Your task to perform on an android device: What's on my calendar tomorrow? Image 0: 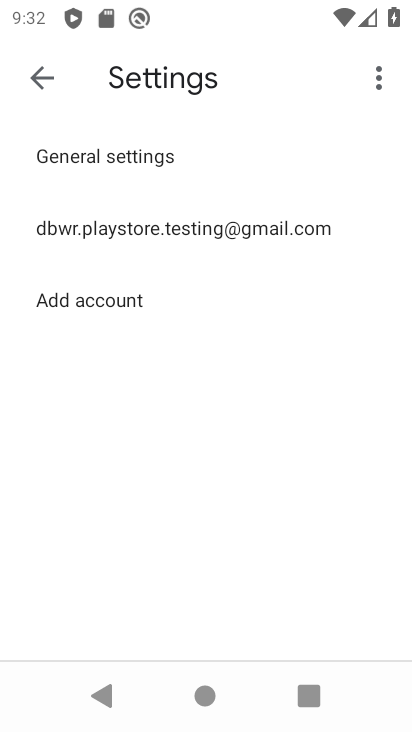
Step 0: press home button
Your task to perform on an android device: What's on my calendar tomorrow? Image 1: 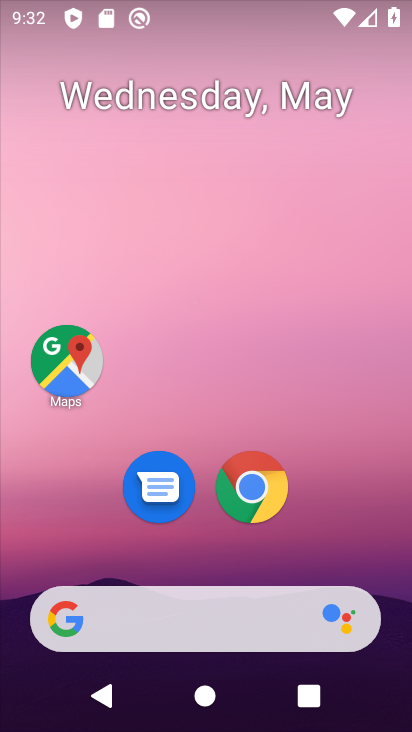
Step 1: drag from (270, 644) to (175, 7)
Your task to perform on an android device: What's on my calendar tomorrow? Image 2: 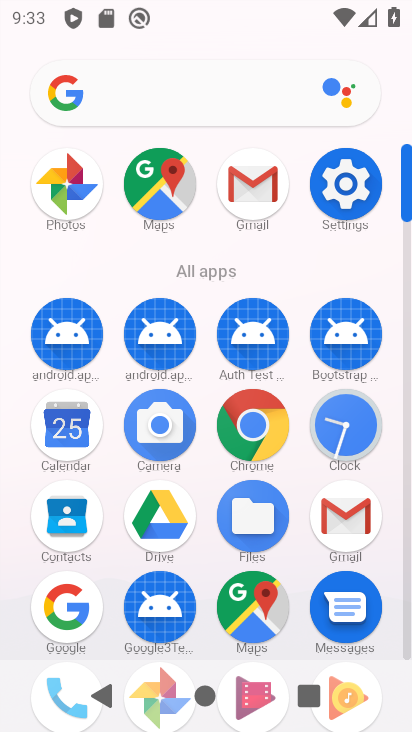
Step 2: click (76, 411)
Your task to perform on an android device: What's on my calendar tomorrow? Image 3: 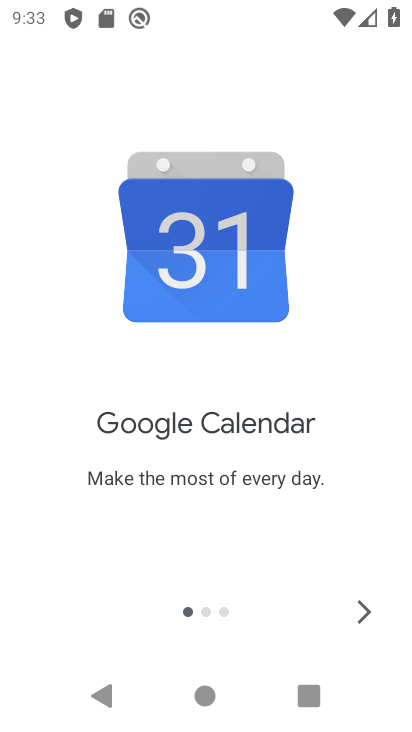
Step 3: click (340, 607)
Your task to perform on an android device: What's on my calendar tomorrow? Image 4: 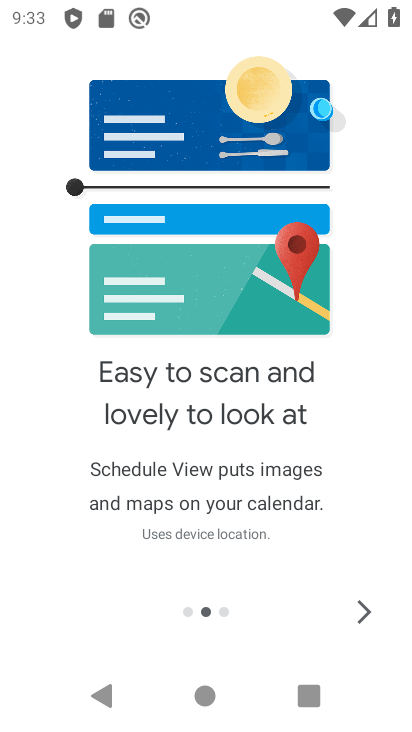
Step 4: click (366, 609)
Your task to perform on an android device: What's on my calendar tomorrow? Image 5: 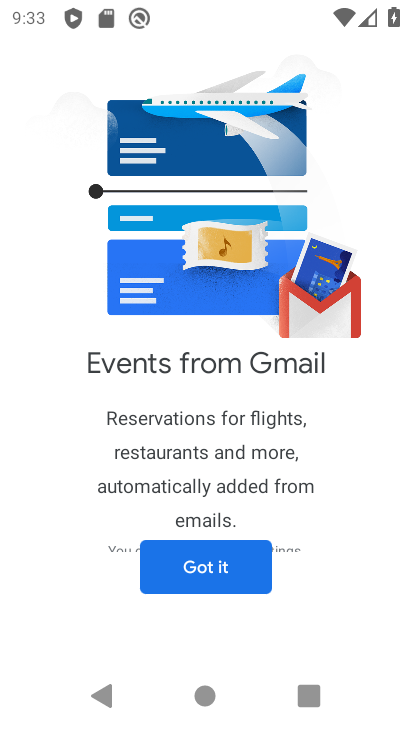
Step 5: click (228, 575)
Your task to perform on an android device: What's on my calendar tomorrow? Image 6: 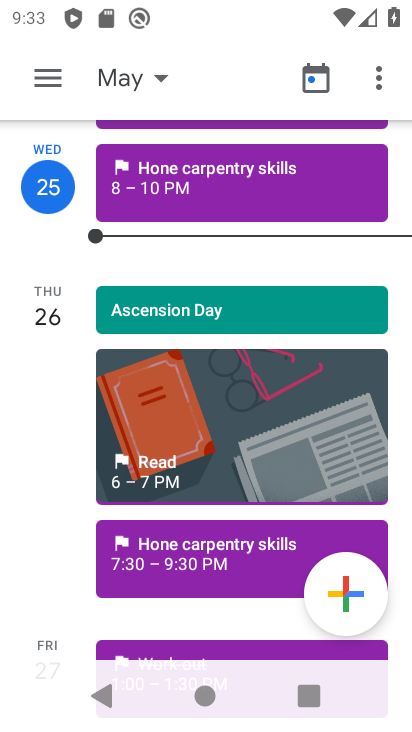
Step 6: click (37, 73)
Your task to perform on an android device: What's on my calendar tomorrow? Image 7: 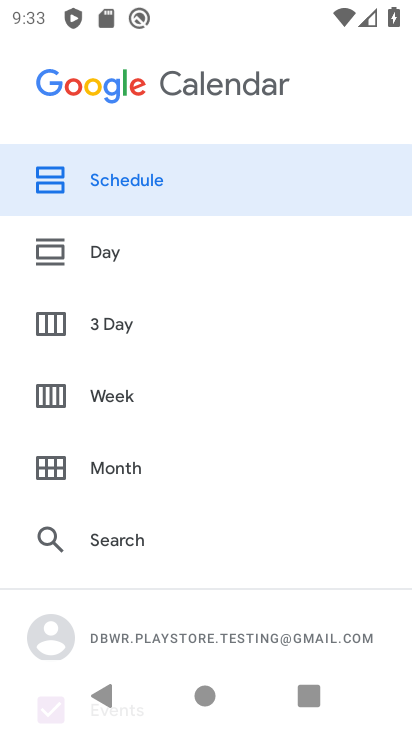
Step 7: click (132, 470)
Your task to perform on an android device: What's on my calendar tomorrow? Image 8: 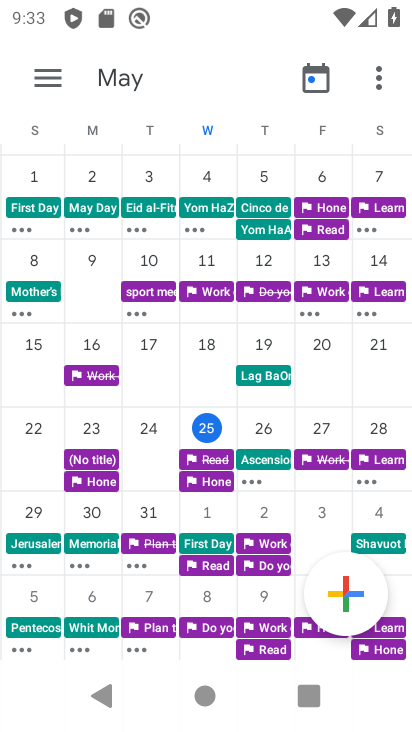
Step 8: click (268, 434)
Your task to perform on an android device: What's on my calendar tomorrow? Image 9: 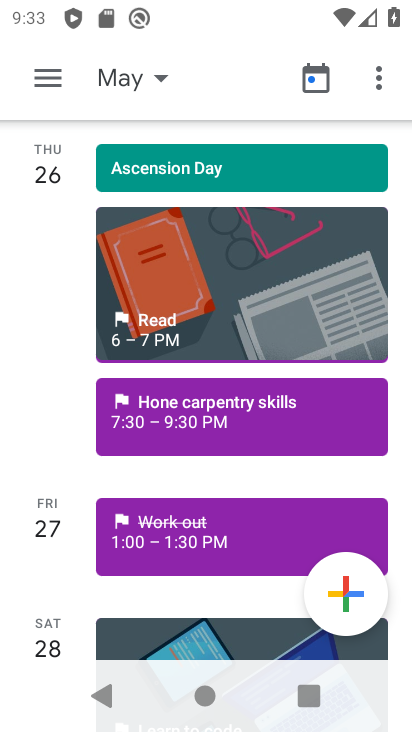
Step 9: task complete